Your task to perform on an android device: Go to internet settings Image 0: 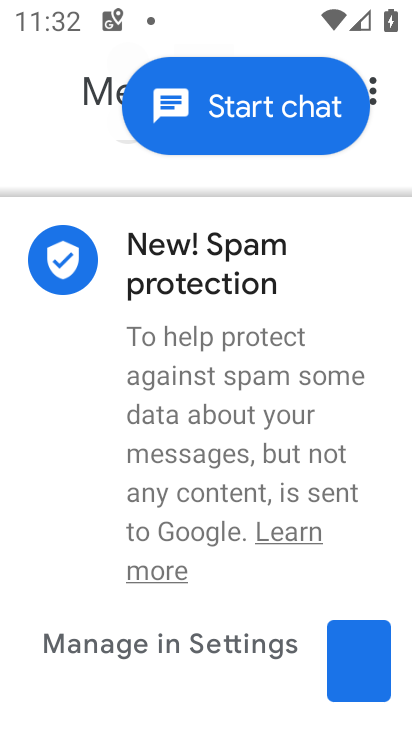
Step 0: press home button
Your task to perform on an android device: Go to internet settings Image 1: 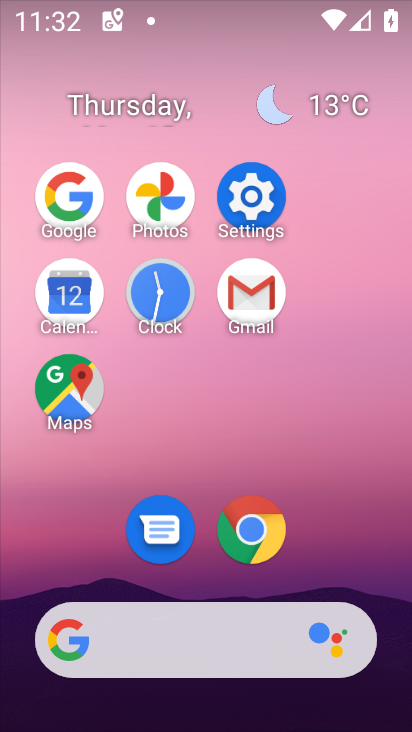
Step 1: click (237, 205)
Your task to perform on an android device: Go to internet settings Image 2: 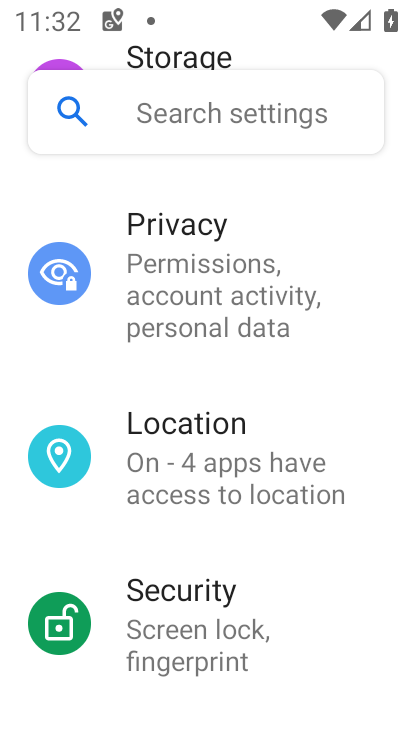
Step 2: drag from (308, 220) to (243, 647)
Your task to perform on an android device: Go to internet settings Image 3: 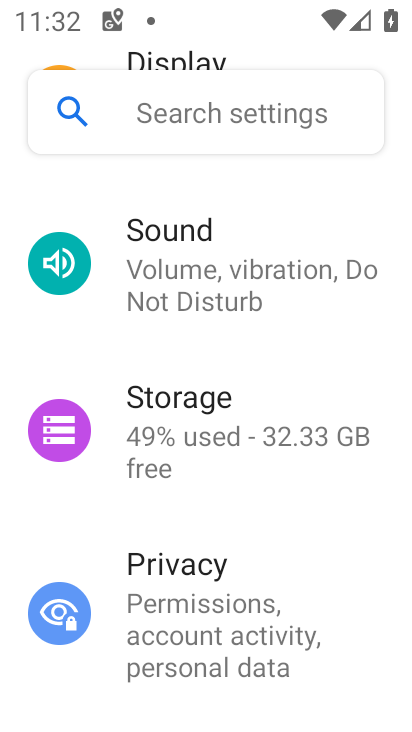
Step 3: drag from (317, 202) to (308, 651)
Your task to perform on an android device: Go to internet settings Image 4: 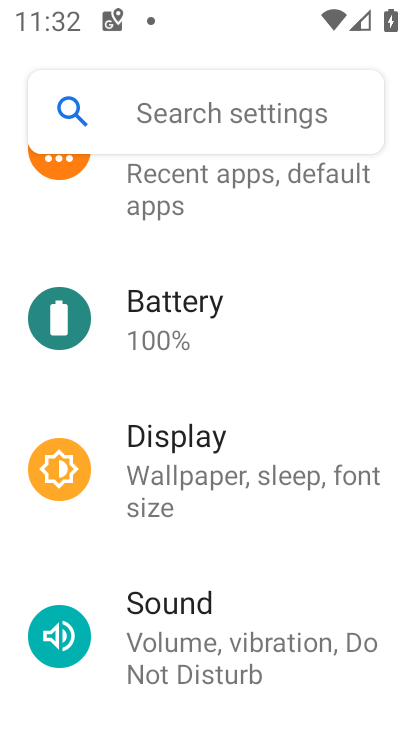
Step 4: drag from (331, 258) to (290, 638)
Your task to perform on an android device: Go to internet settings Image 5: 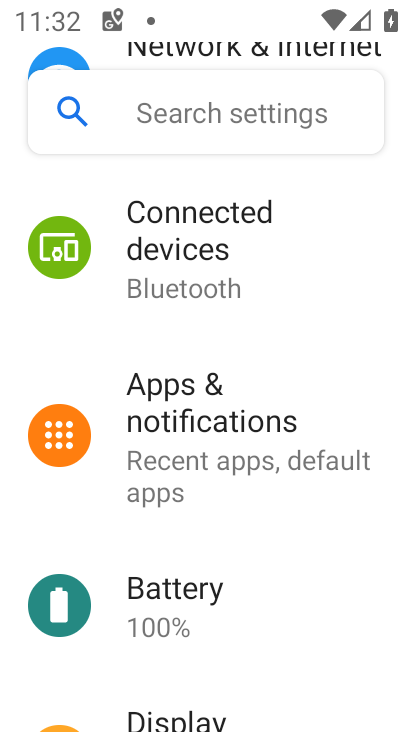
Step 5: drag from (321, 216) to (298, 622)
Your task to perform on an android device: Go to internet settings Image 6: 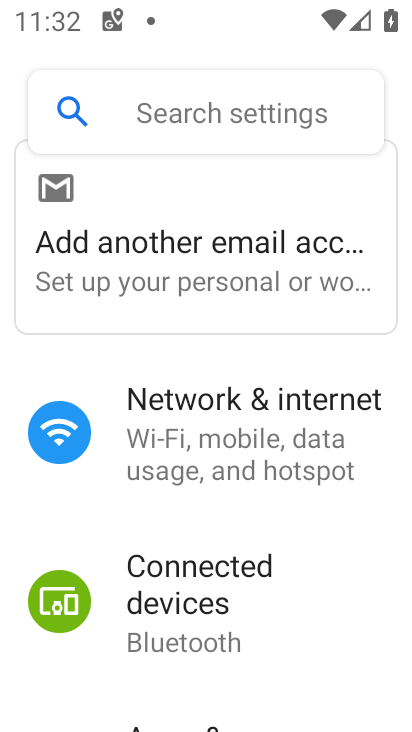
Step 6: click (266, 409)
Your task to perform on an android device: Go to internet settings Image 7: 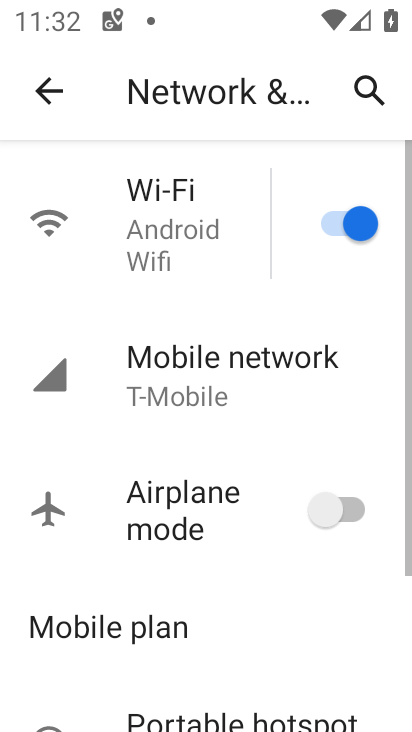
Step 7: click (215, 367)
Your task to perform on an android device: Go to internet settings Image 8: 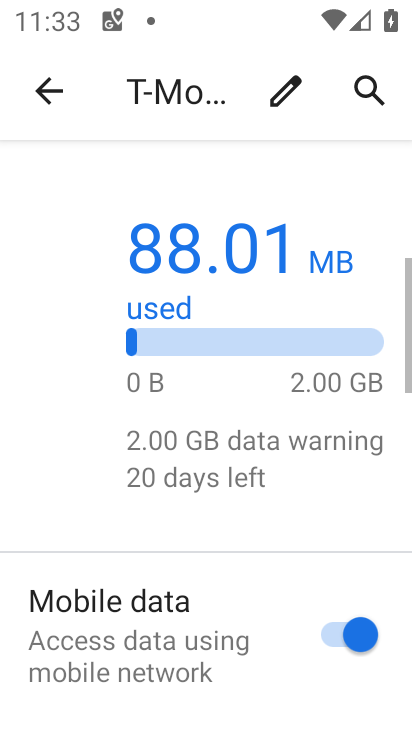
Step 8: task complete